Your task to perform on an android device: see sites visited before in the chrome app Image 0: 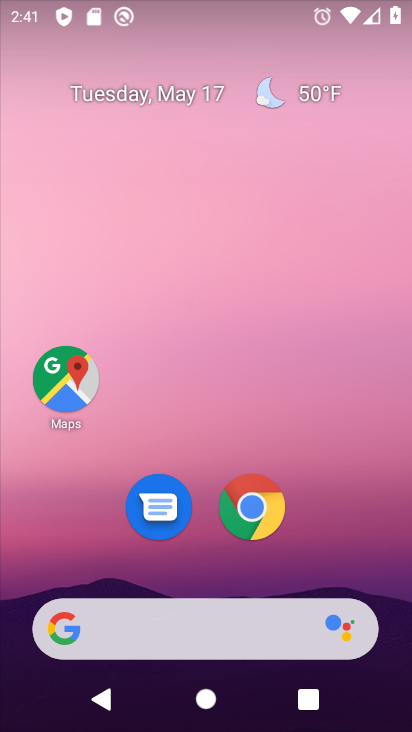
Step 0: click (252, 517)
Your task to perform on an android device: see sites visited before in the chrome app Image 1: 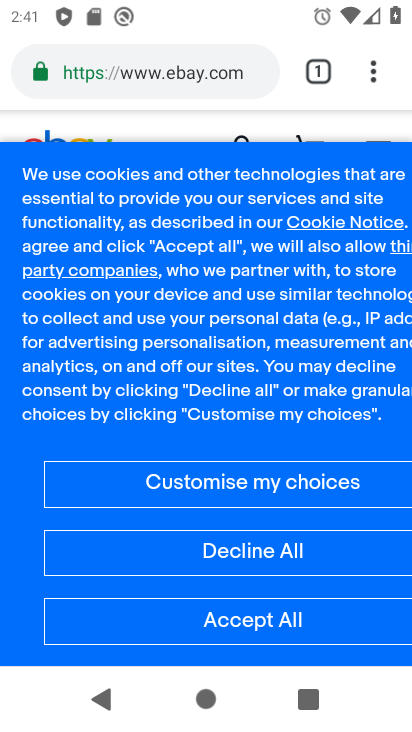
Step 1: click (376, 75)
Your task to perform on an android device: see sites visited before in the chrome app Image 2: 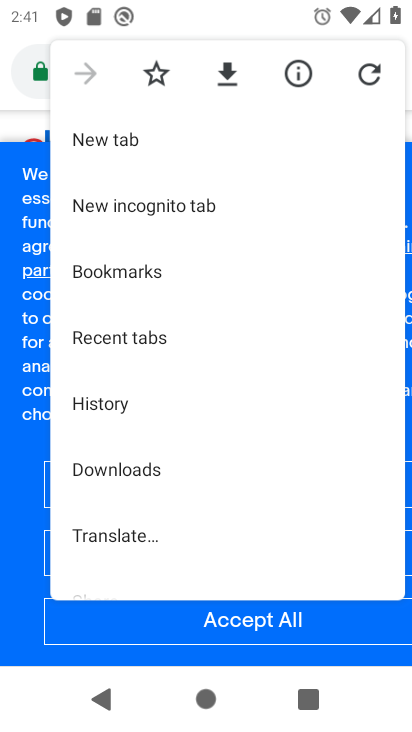
Step 2: click (132, 404)
Your task to perform on an android device: see sites visited before in the chrome app Image 3: 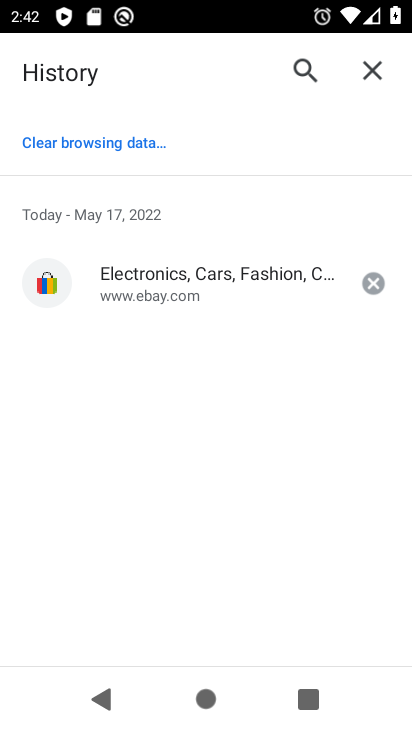
Step 3: task complete